Your task to perform on an android device: Open Amazon Image 0: 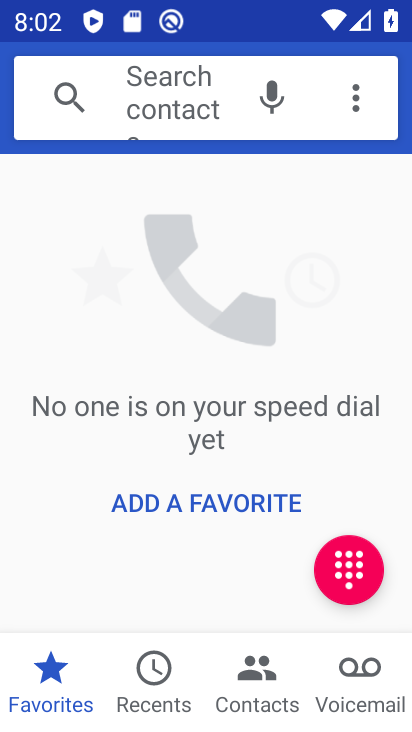
Step 0: press home button
Your task to perform on an android device: Open Amazon Image 1: 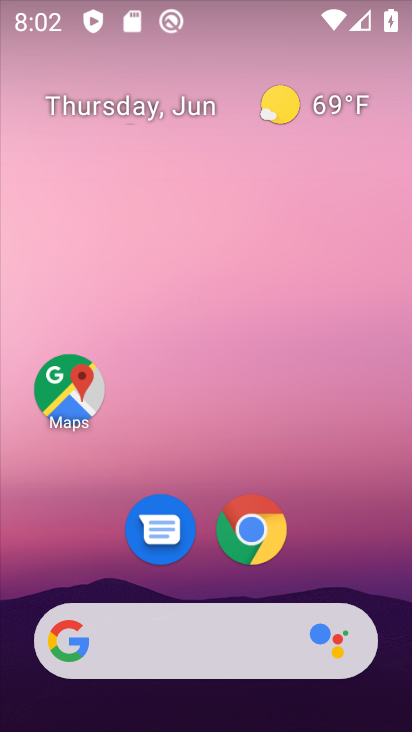
Step 1: drag from (206, 579) to (170, 81)
Your task to perform on an android device: Open Amazon Image 2: 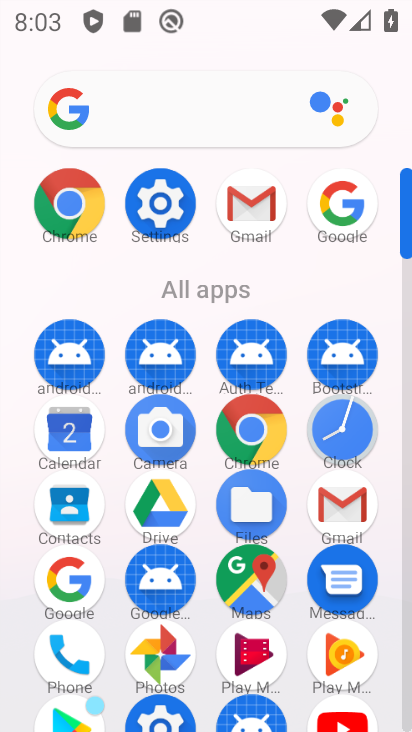
Step 2: click (61, 217)
Your task to perform on an android device: Open Amazon Image 3: 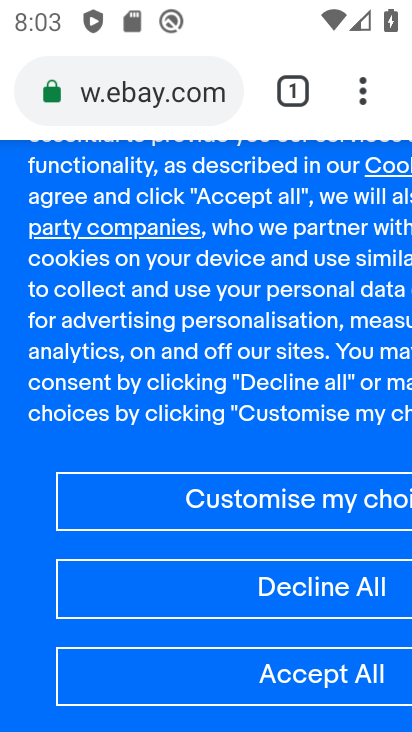
Step 3: press home button
Your task to perform on an android device: Open Amazon Image 4: 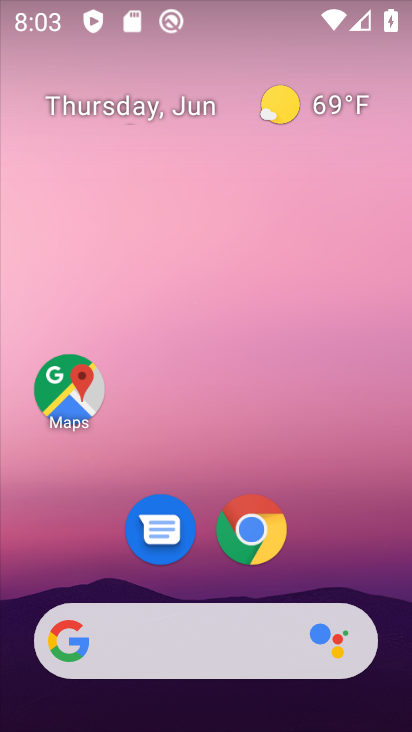
Step 4: click (236, 521)
Your task to perform on an android device: Open Amazon Image 5: 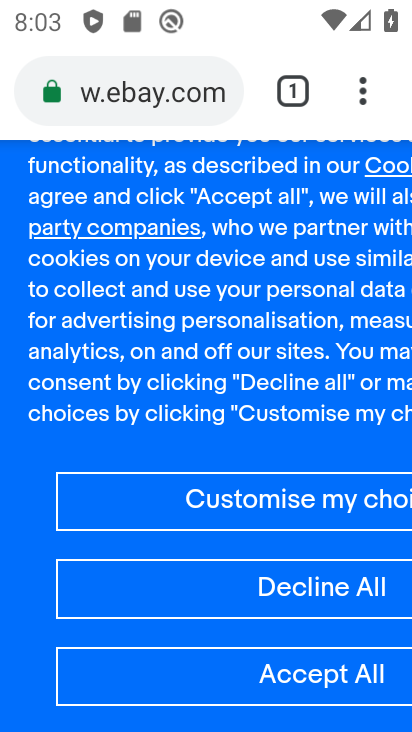
Step 5: click (275, 89)
Your task to perform on an android device: Open Amazon Image 6: 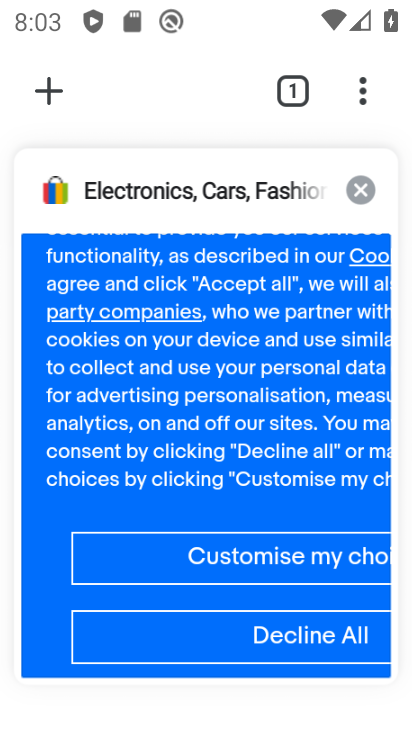
Step 6: click (30, 87)
Your task to perform on an android device: Open Amazon Image 7: 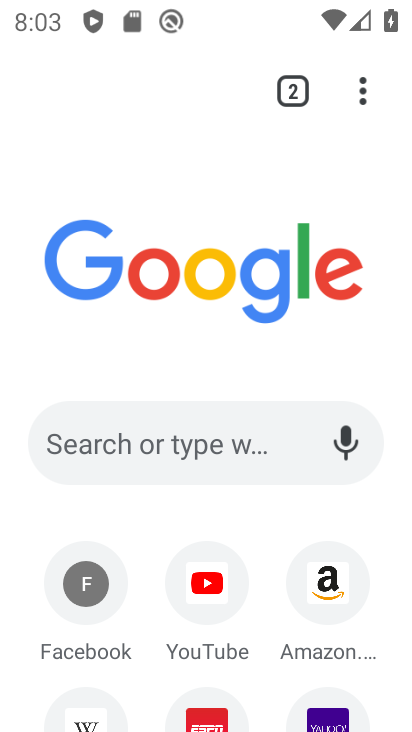
Step 7: click (319, 590)
Your task to perform on an android device: Open Amazon Image 8: 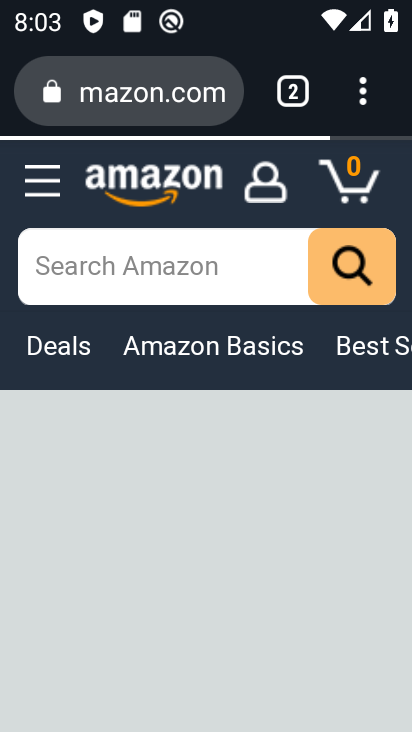
Step 8: task complete